Your task to perform on an android device: Go to display settings Image 0: 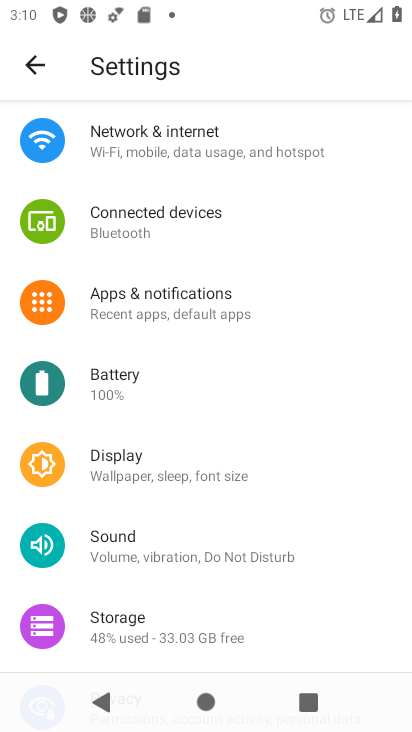
Step 0: click (117, 457)
Your task to perform on an android device: Go to display settings Image 1: 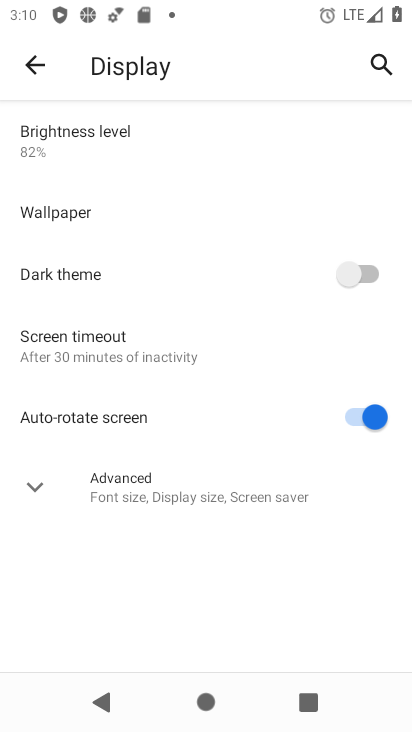
Step 1: task complete